Your task to perform on an android device: check google app version Image 0: 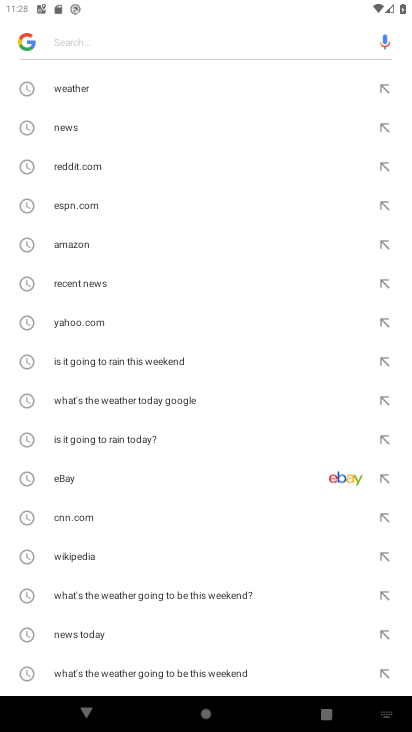
Step 0: press home button
Your task to perform on an android device: check google app version Image 1: 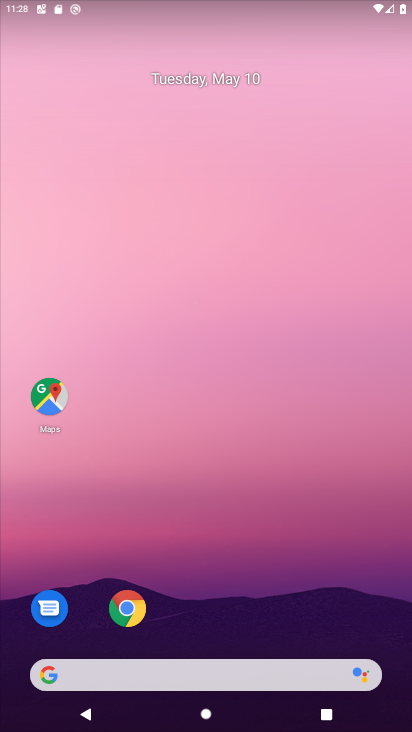
Step 1: click (131, 617)
Your task to perform on an android device: check google app version Image 2: 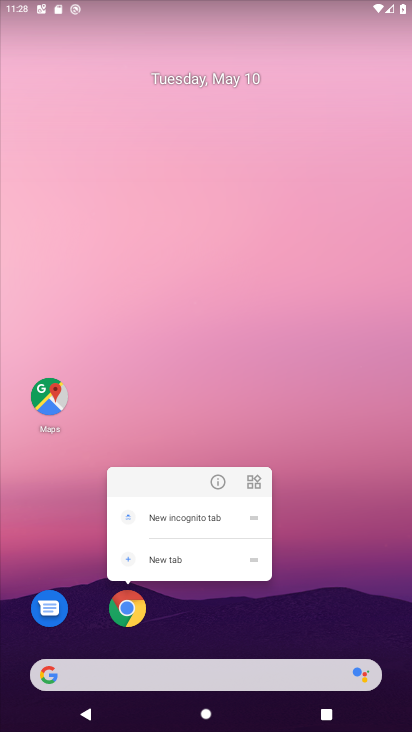
Step 2: click (216, 482)
Your task to perform on an android device: check google app version Image 3: 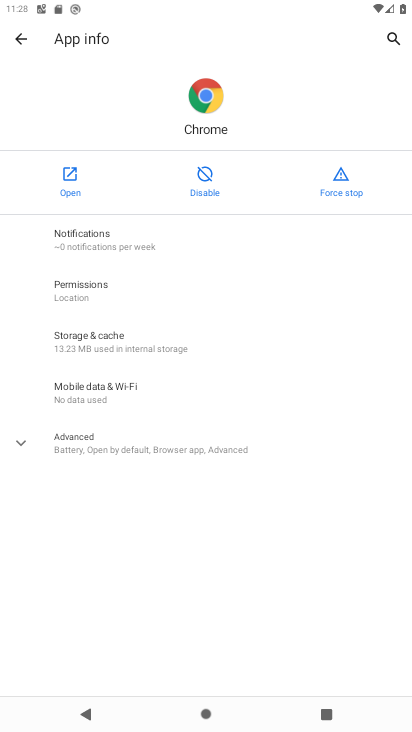
Step 3: click (182, 457)
Your task to perform on an android device: check google app version Image 4: 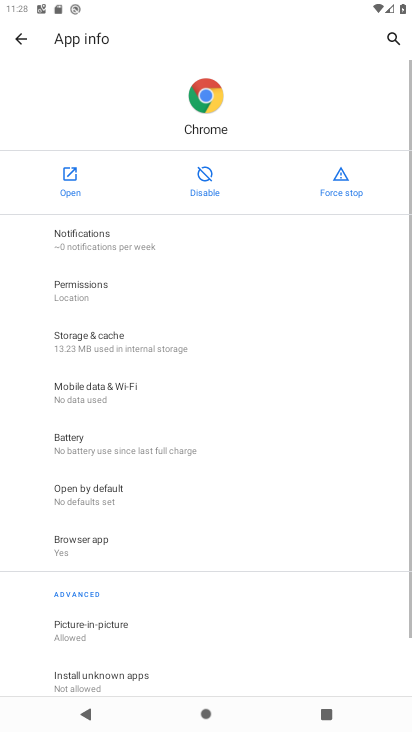
Step 4: task complete